Your task to perform on an android device: open a bookmark in the chrome app Image 0: 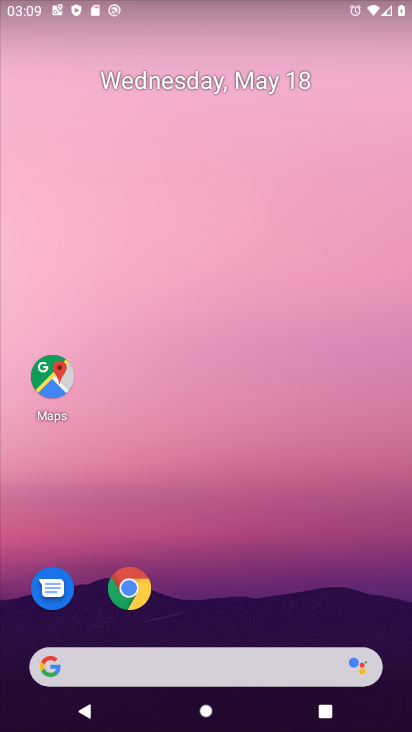
Step 0: click (131, 583)
Your task to perform on an android device: open a bookmark in the chrome app Image 1: 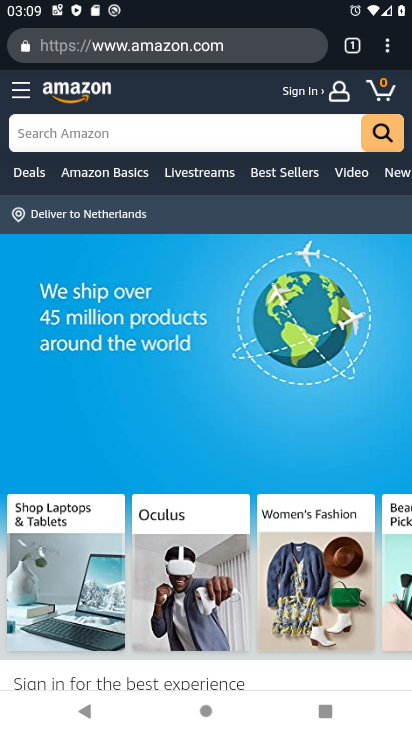
Step 1: click (389, 48)
Your task to perform on an android device: open a bookmark in the chrome app Image 2: 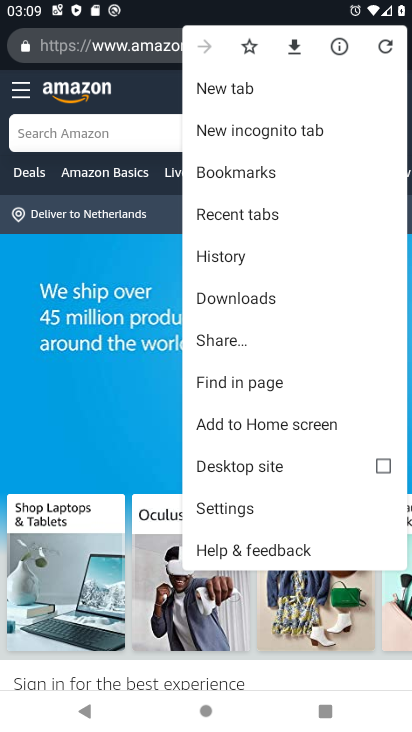
Step 2: click (280, 176)
Your task to perform on an android device: open a bookmark in the chrome app Image 3: 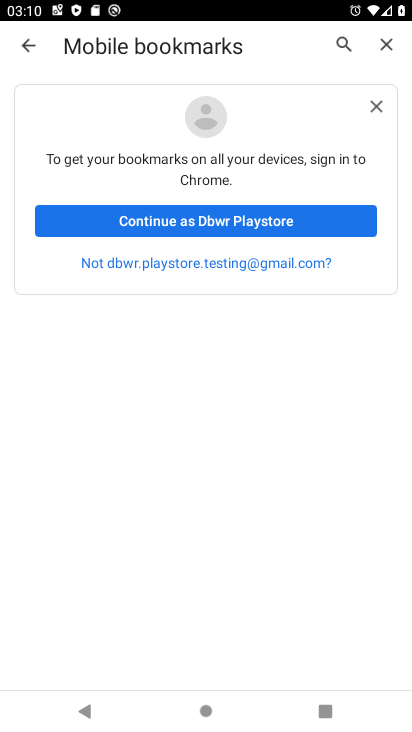
Step 3: click (375, 110)
Your task to perform on an android device: open a bookmark in the chrome app Image 4: 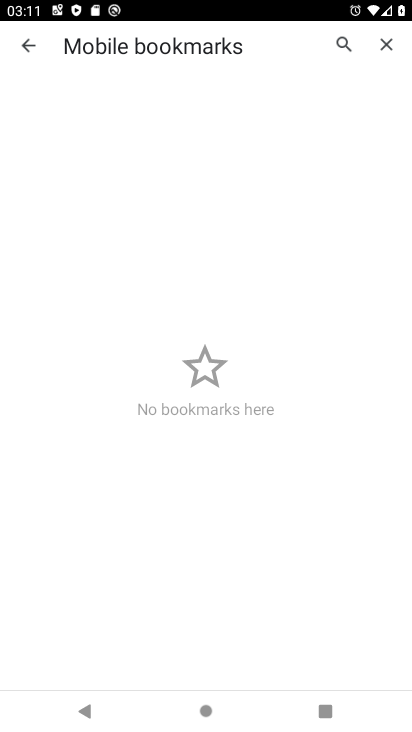
Step 4: task complete